Your task to perform on an android device: set an alarm Image 0: 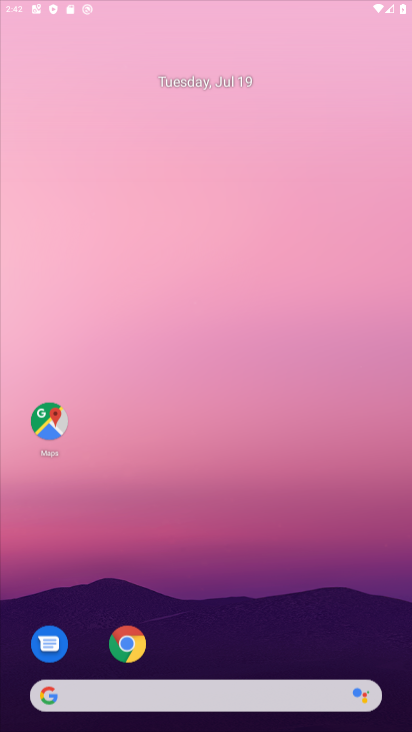
Step 0: click (257, 343)
Your task to perform on an android device: set an alarm Image 1: 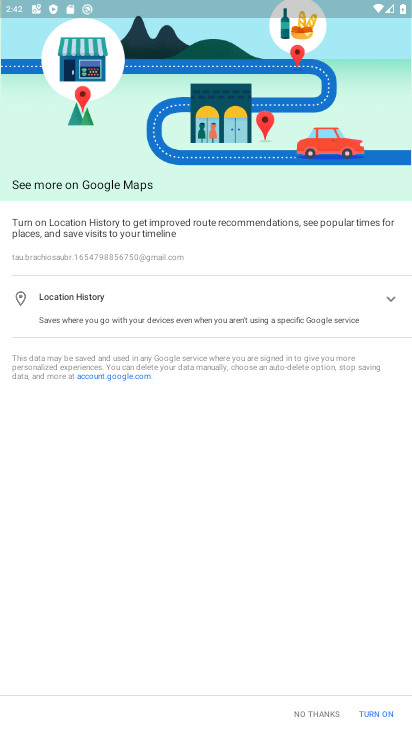
Step 1: press home button
Your task to perform on an android device: set an alarm Image 2: 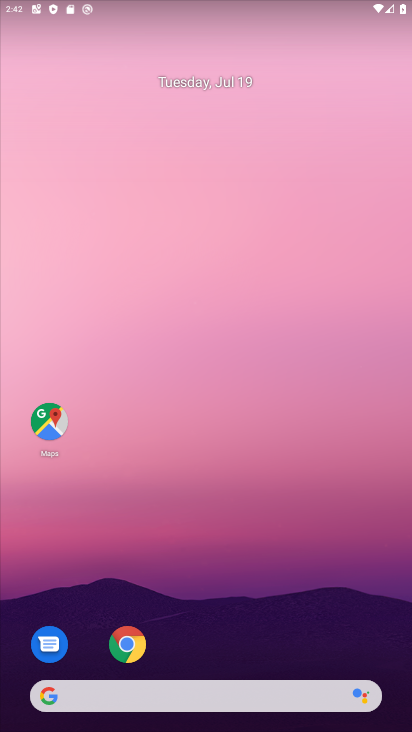
Step 2: drag from (322, 630) to (205, 140)
Your task to perform on an android device: set an alarm Image 3: 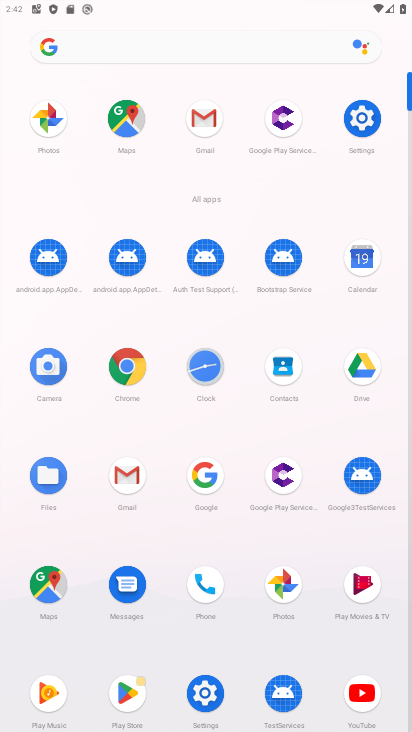
Step 3: click (202, 361)
Your task to perform on an android device: set an alarm Image 4: 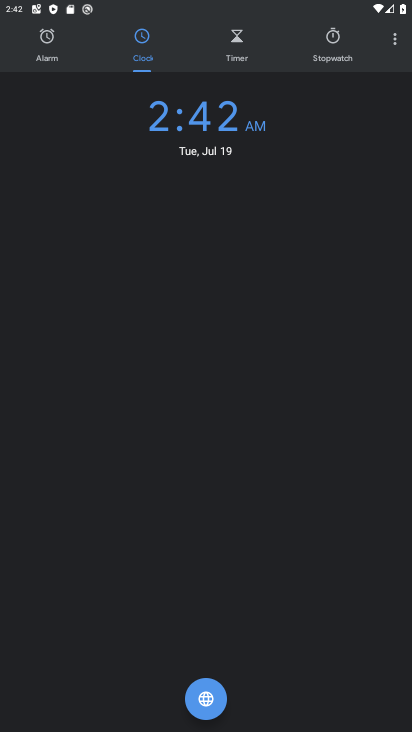
Step 4: click (51, 51)
Your task to perform on an android device: set an alarm Image 5: 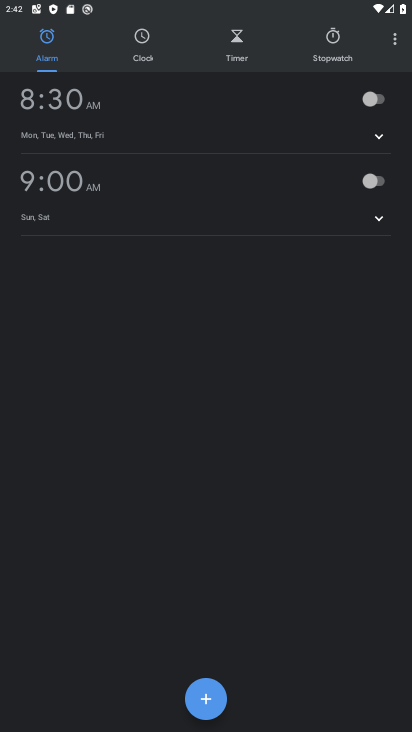
Step 5: click (195, 680)
Your task to perform on an android device: set an alarm Image 6: 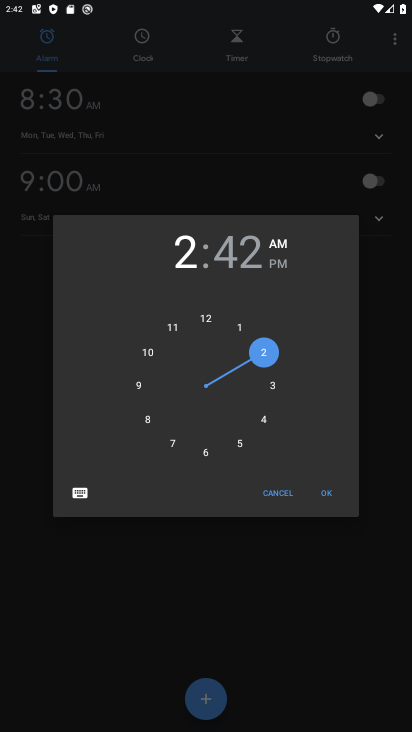
Step 6: click (333, 497)
Your task to perform on an android device: set an alarm Image 7: 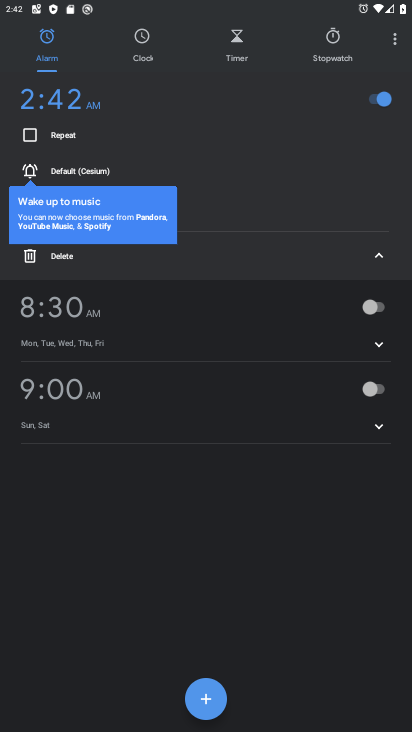
Step 7: task complete